Your task to perform on an android device: check storage Image 0: 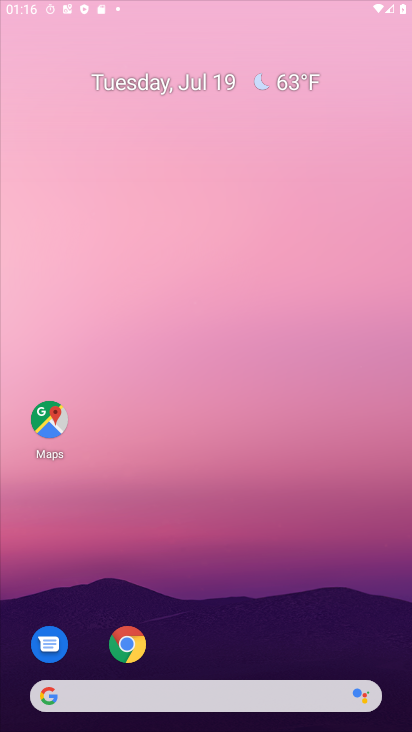
Step 0: press home button
Your task to perform on an android device: check storage Image 1: 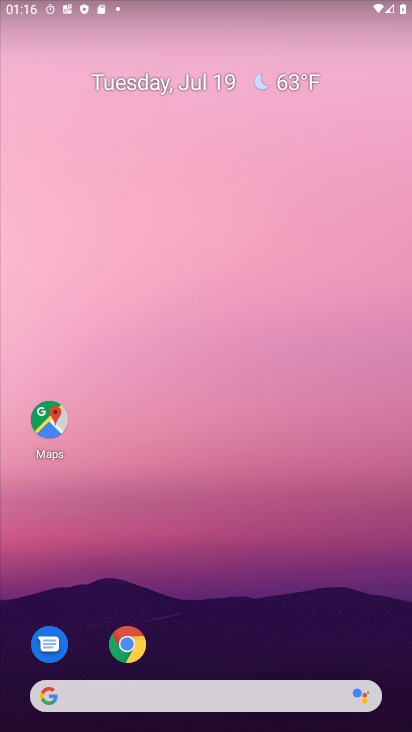
Step 1: drag from (227, 728) to (227, 212)
Your task to perform on an android device: check storage Image 2: 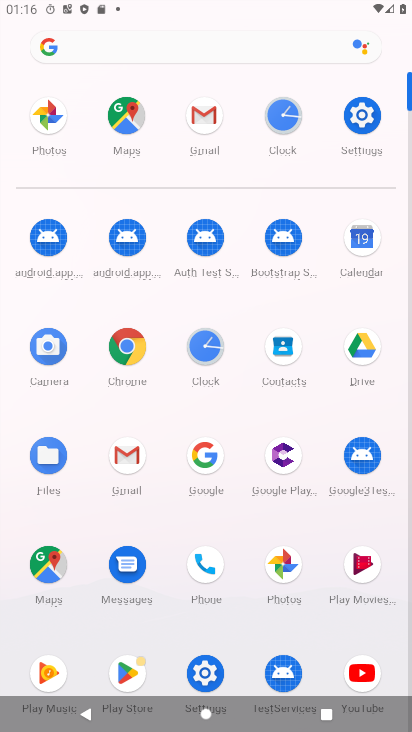
Step 2: click (367, 112)
Your task to perform on an android device: check storage Image 3: 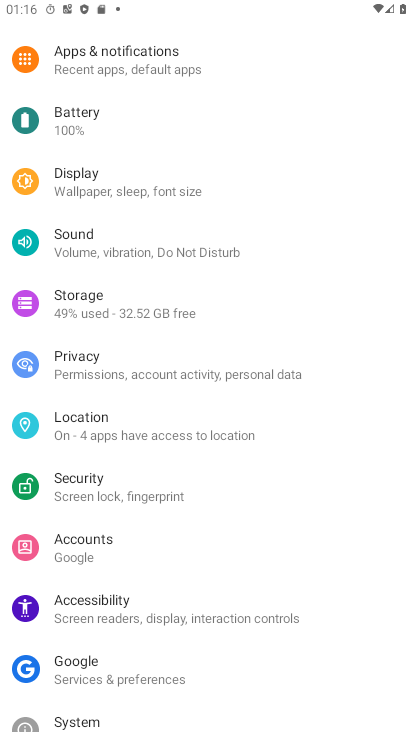
Step 3: click (98, 304)
Your task to perform on an android device: check storage Image 4: 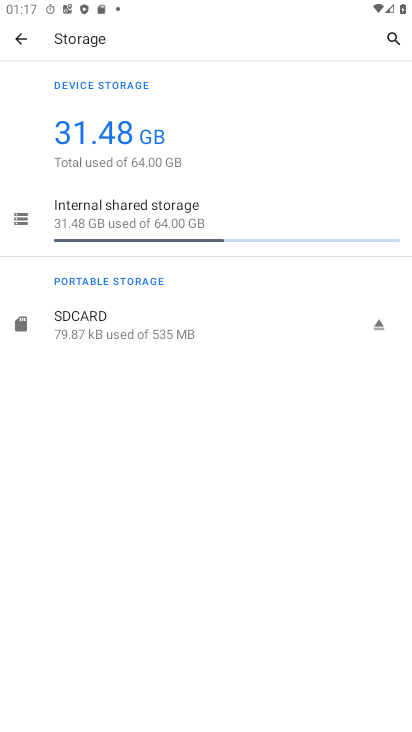
Step 4: task complete